Your task to perform on an android device: Play the last video I watched on Youtube Image 0: 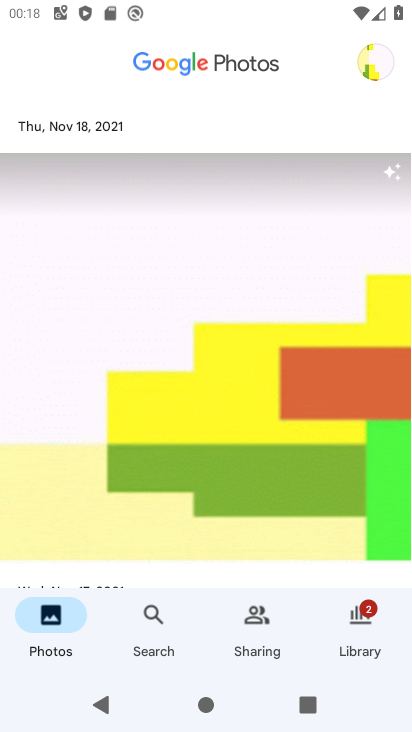
Step 0: press home button
Your task to perform on an android device: Play the last video I watched on Youtube Image 1: 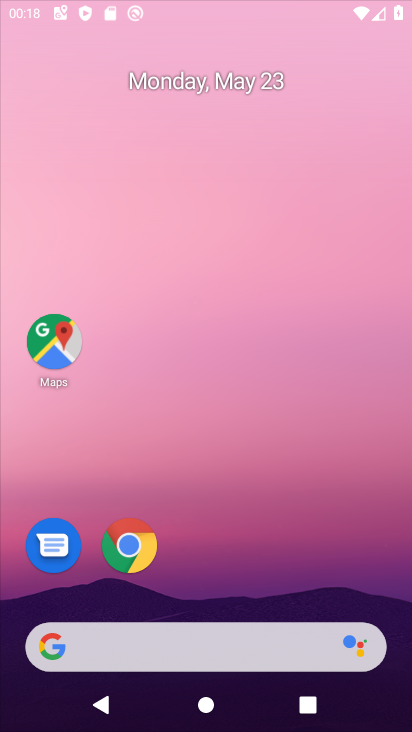
Step 1: drag from (158, 549) to (277, 179)
Your task to perform on an android device: Play the last video I watched on Youtube Image 2: 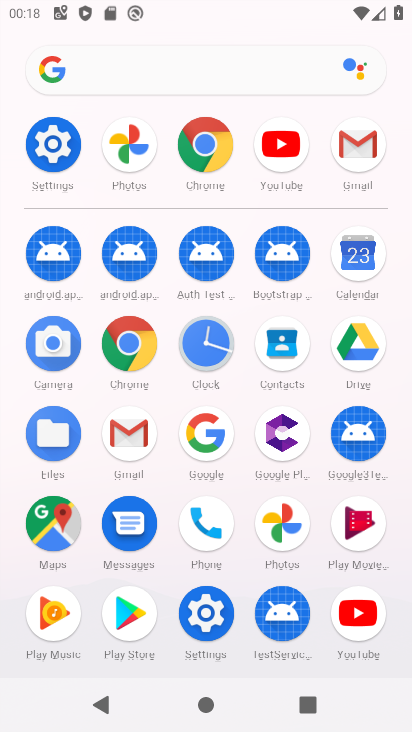
Step 2: click (360, 600)
Your task to perform on an android device: Play the last video I watched on Youtube Image 3: 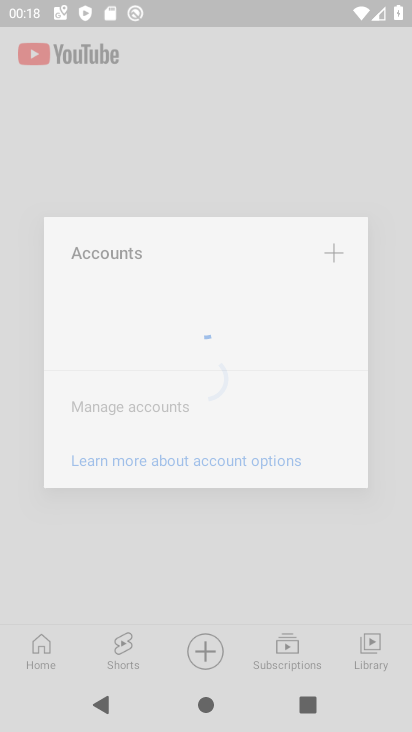
Step 3: click (160, 371)
Your task to perform on an android device: Play the last video I watched on Youtube Image 4: 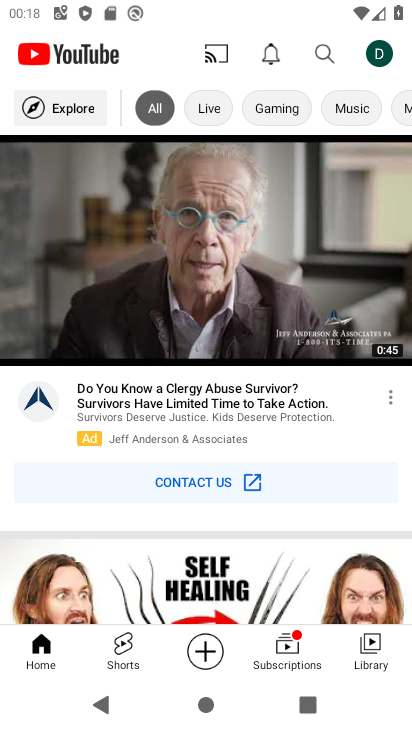
Step 4: click (355, 618)
Your task to perform on an android device: Play the last video I watched on Youtube Image 5: 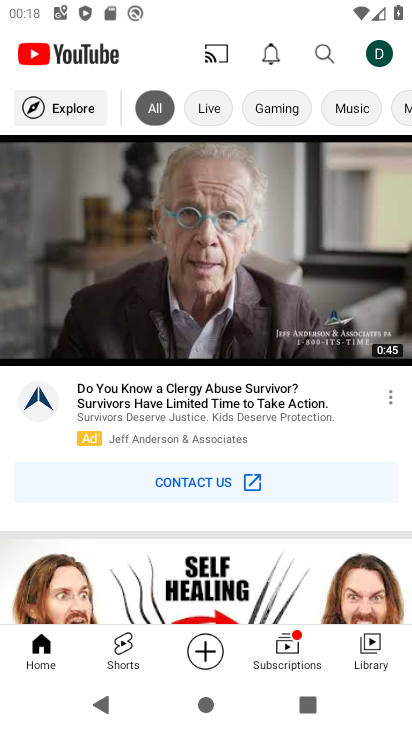
Step 5: click (360, 622)
Your task to perform on an android device: Play the last video I watched on Youtube Image 6: 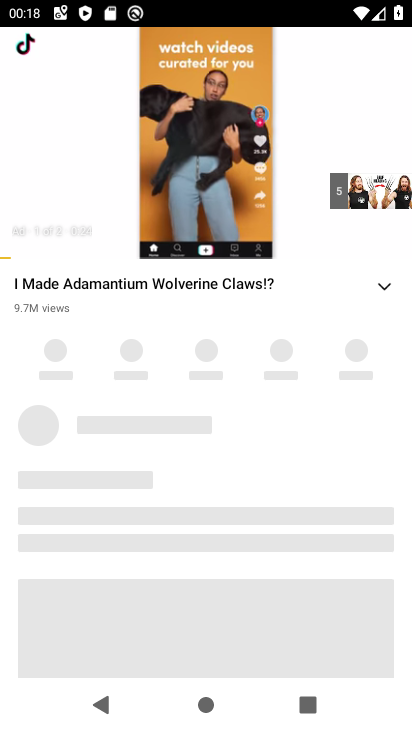
Step 6: drag from (159, 140) to (318, 673)
Your task to perform on an android device: Play the last video I watched on Youtube Image 7: 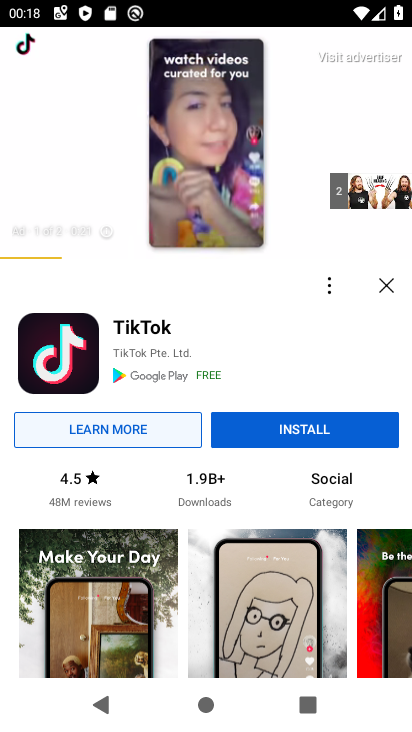
Step 7: click (391, 302)
Your task to perform on an android device: Play the last video I watched on Youtube Image 8: 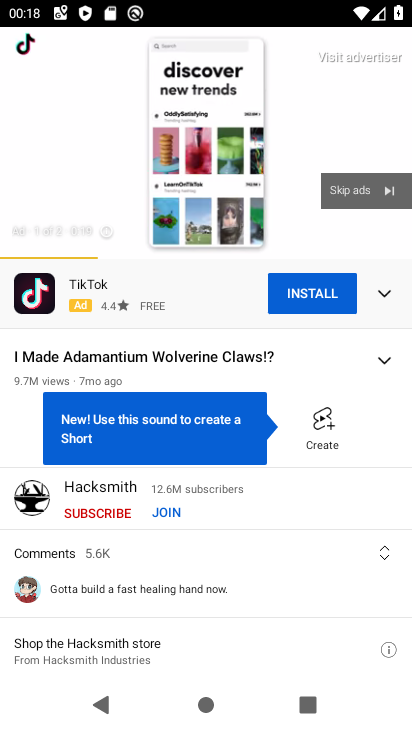
Step 8: drag from (223, 136) to (411, 606)
Your task to perform on an android device: Play the last video I watched on Youtube Image 9: 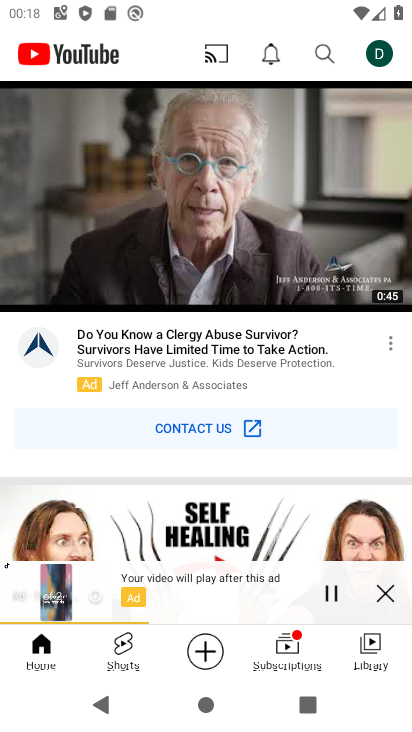
Step 9: click (381, 603)
Your task to perform on an android device: Play the last video I watched on Youtube Image 10: 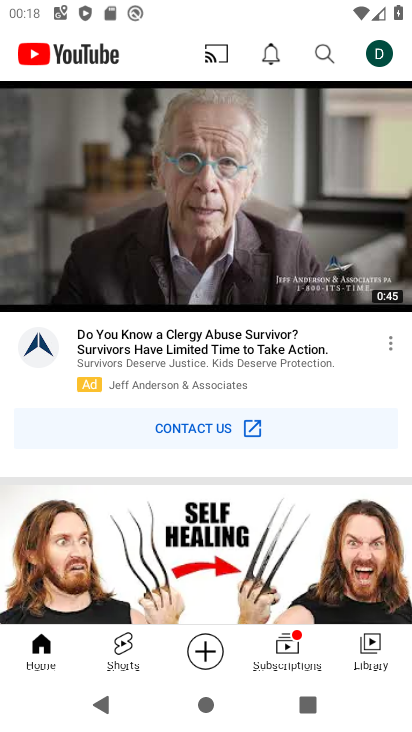
Step 10: click (359, 643)
Your task to perform on an android device: Play the last video I watched on Youtube Image 11: 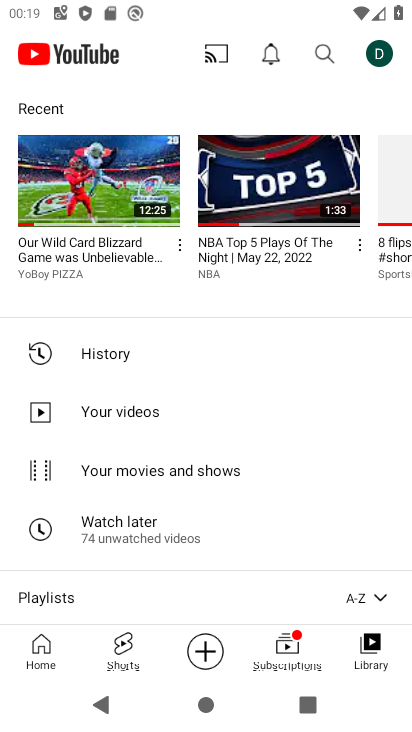
Step 11: click (115, 180)
Your task to perform on an android device: Play the last video I watched on Youtube Image 12: 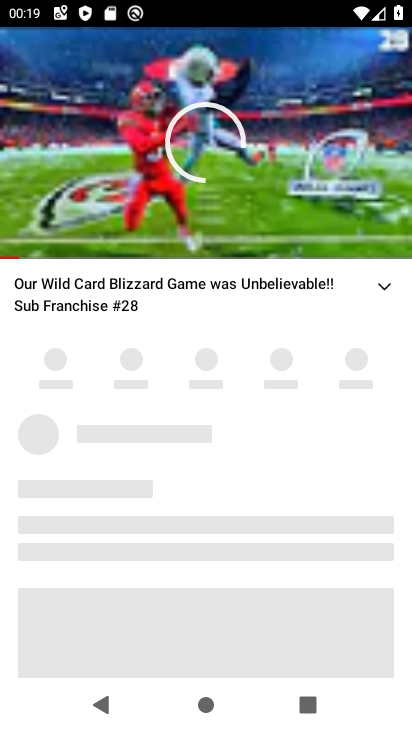
Step 12: task complete